Your task to perform on an android device: turn on airplane mode Image 0: 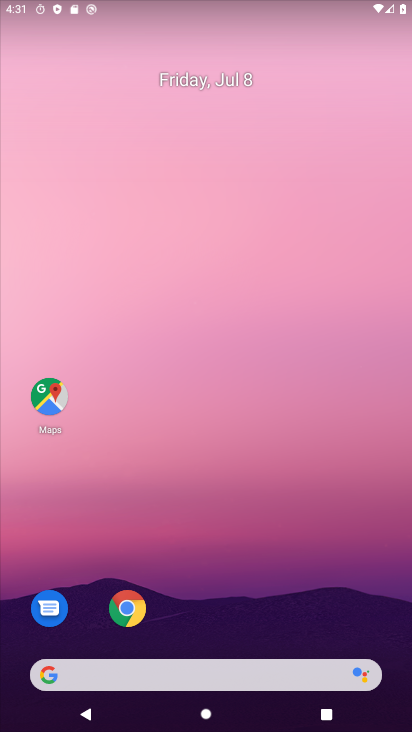
Step 0: press home button
Your task to perform on an android device: turn on airplane mode Image 1: 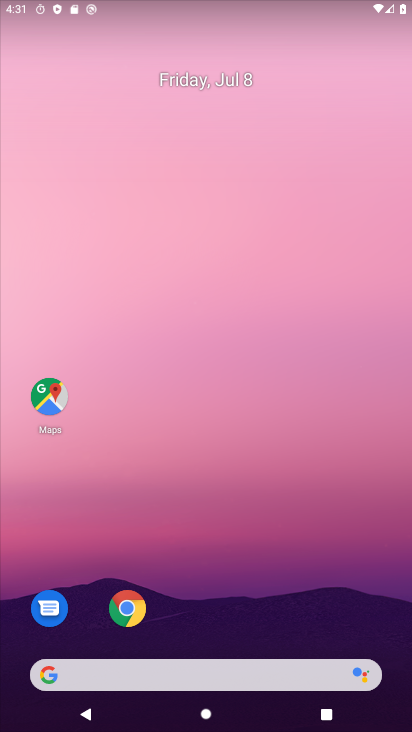
Step 1: drag from (265, 5) to (231, 408)
Your task to perform on an android device: turn on airplane mode Image 2: 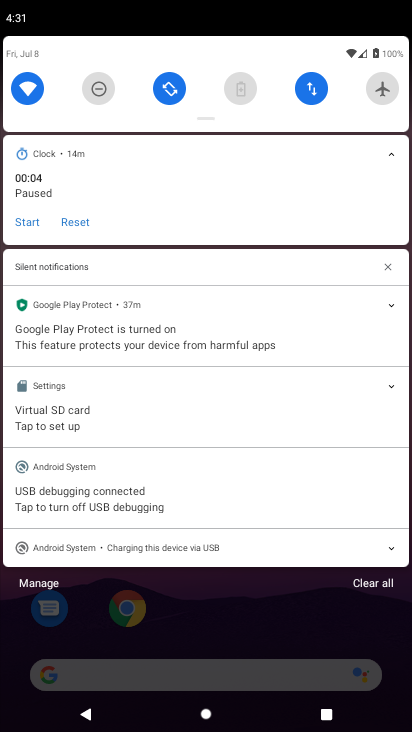
Step 2: click (380, 88)
Your task to perform on an android device: turn on airplane mode Image 3: 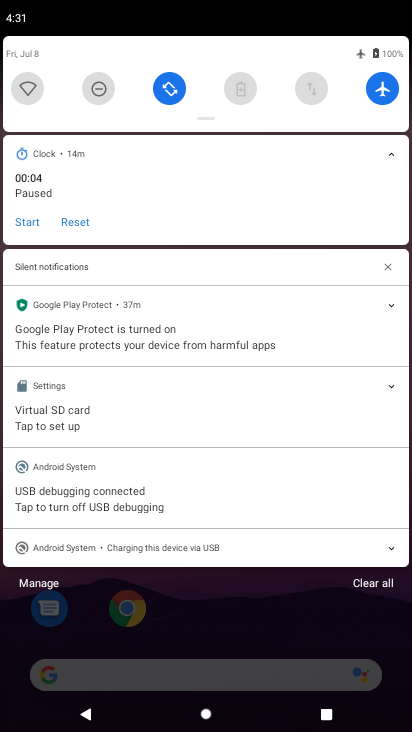
Step 3: task complete